Your task to perform on an android device: What's on my calendar today? Image 0: 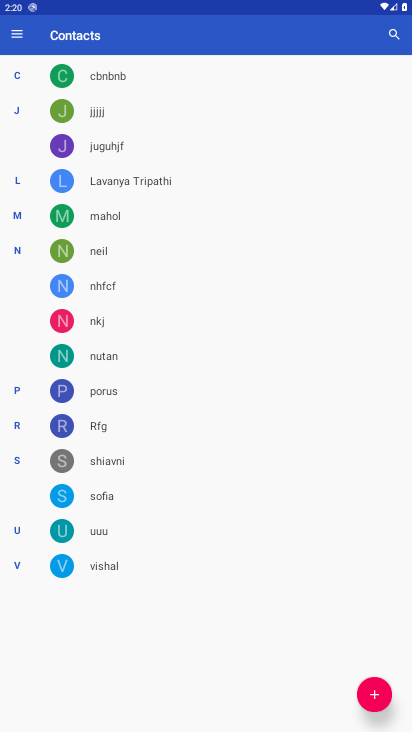
Step 0: press home button
Your task to perform on an android device: What's on my calendar today? Image 1: 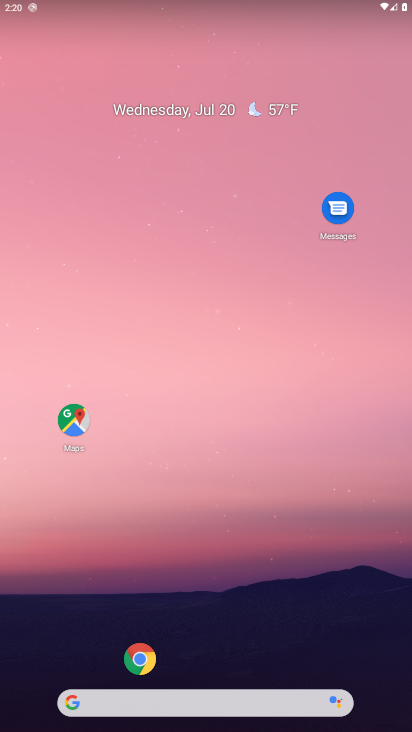
Step 1: drag from (45, 708) to (167, 295)
Your task to perform on an android device: What's on my calendar today? Image 2: 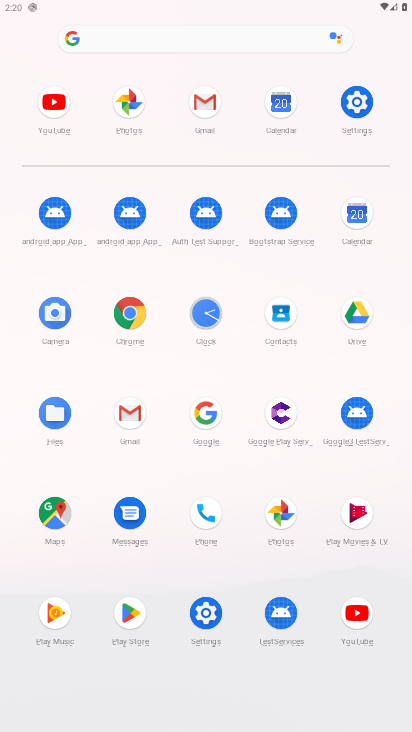
Step 2: click (265, 107)
Your task to perform on an android device: What's on my calendar today? Image 3: 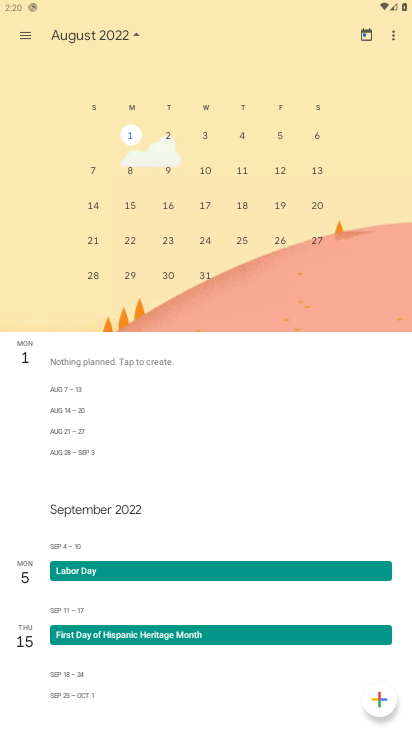
Step 3: task complete